Your task to perform on an android device: allow notifications from all sites in the chrome app Image 0: 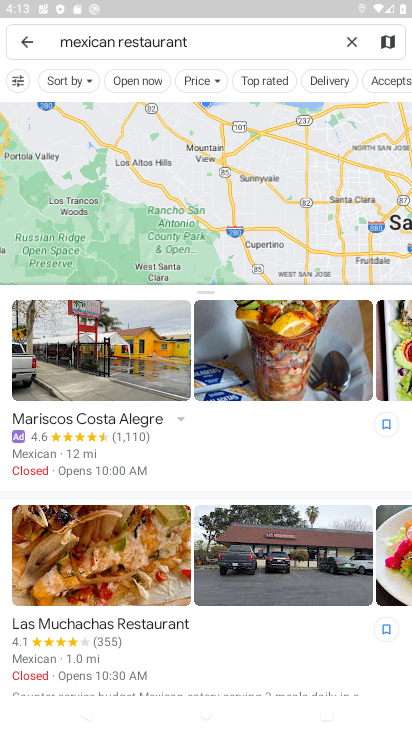
Step 0: press home button
Your task to perform on an android device: allow notifications from all sites in the chrome app Image 1: 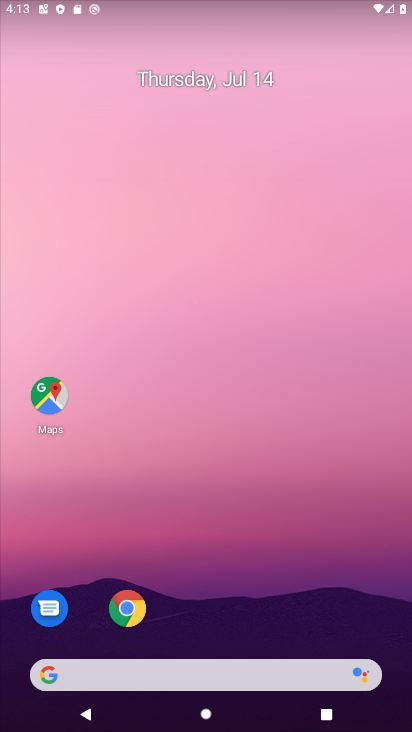
Step 1: drag from (0, 692) to (278, 159)
Your task to perform on an android device: allow notifications from all sites in the chrome app Image 2: 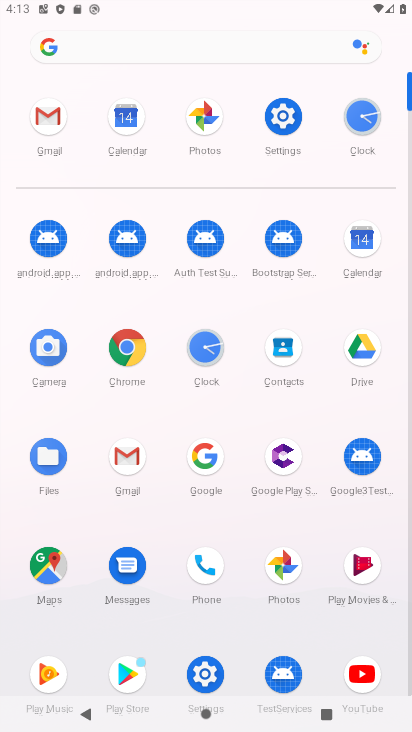
Step 2: click (291, 119)
Your task to perform on an android device: allow notifications from all sites in the chrome app Image 3: 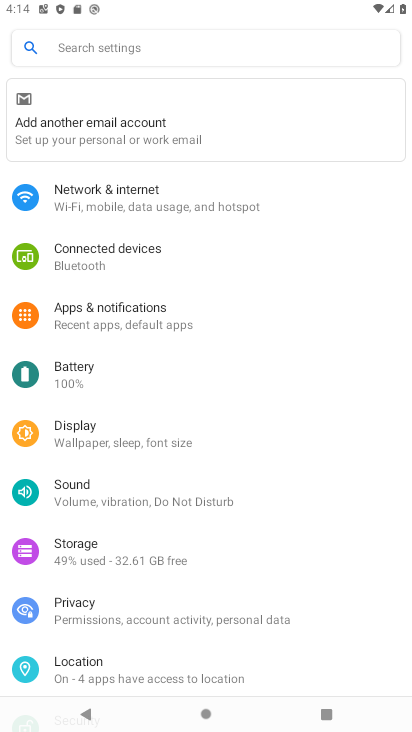
Step 3: click (154, 316)
Your task to perform on an android device: allow notifications from all sites in the chrome app Image 4: 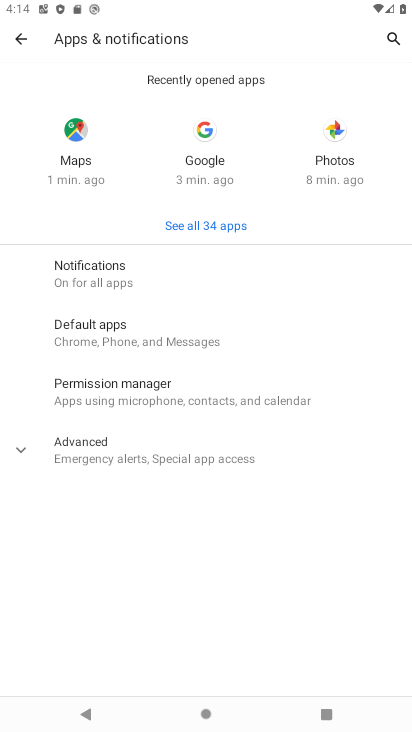
Step 4: click (219, 225)
Your task to perform on an android device: allow notifications from all sites in the chrome app Image 5: 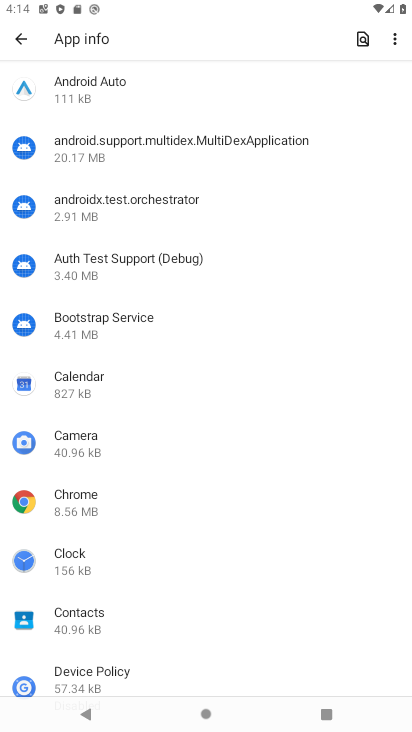
Step 5: click (62, 520)
Your task to perform on an android device: allow notifications from all sites in the chrome app Image 6: 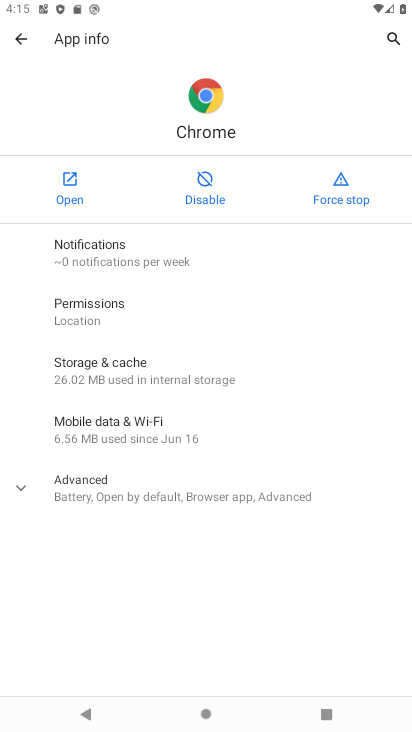
Step 6: click (126, 235)
Your task to perform on an android device: allow notifications from all sites in the chrome app Image 7: 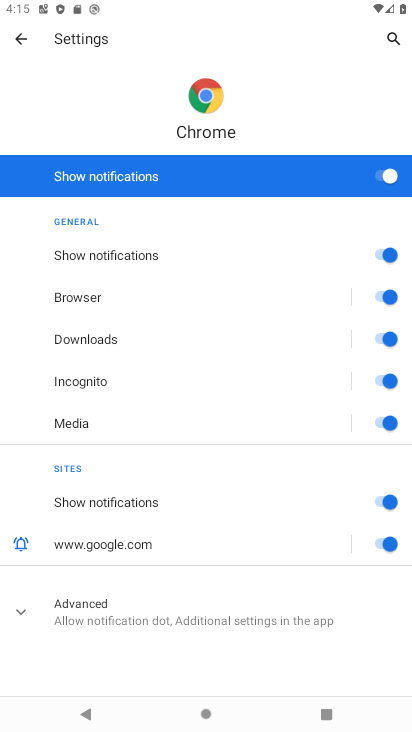
Step 7: task complete